Your task to perform on an android device: What's the news in Bolivia? Image 0: 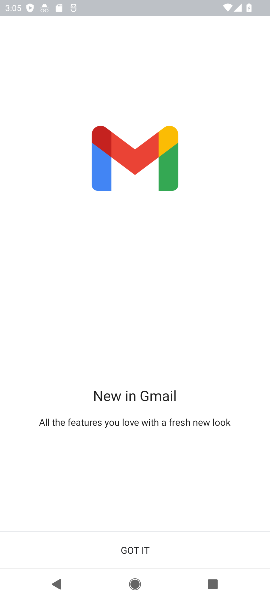
Step 0: press home button
Your task to perform on an android device: What's the news in Bolivia? Image 1: 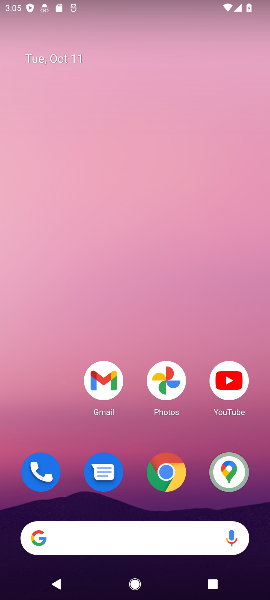
Step 1: click (168, 473)
Your task to perform on an android device: What's the news in Bolivia? Image 2: 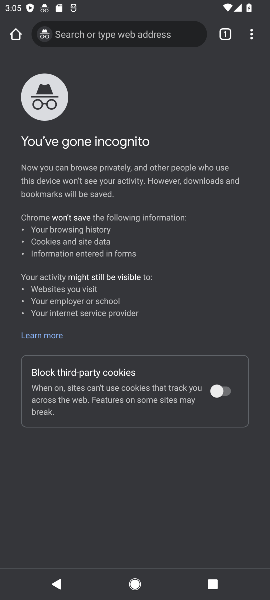
Step 2: click (130, 28)
Your task to perform on an android device: What's the news in Bolivia? Image 3: 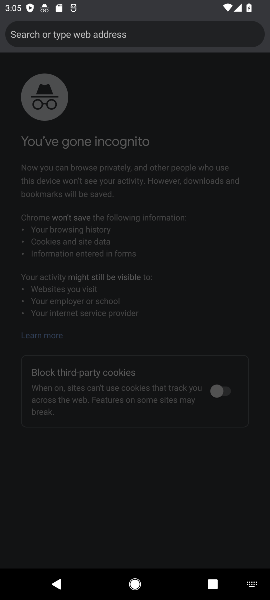
Step 3: type "What's the news in Bolivia?"
Your task to perform on an android device: What's the news in Bolivia? Image 4: 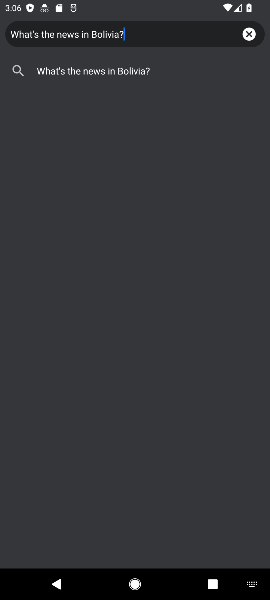
Step 4: click (72, 74)
Your task to perform on an android device: What's the news in Bolivia? Image 5: 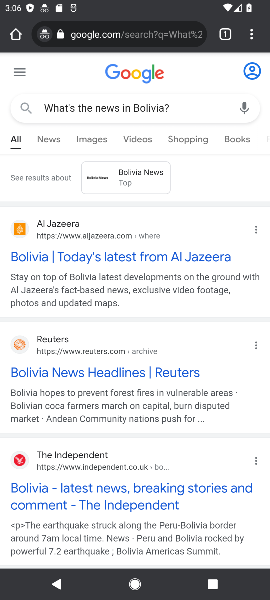
Step 5: click (49, 141)
Your task to perform on an android device: What's the news in Bolivia? Image 6: 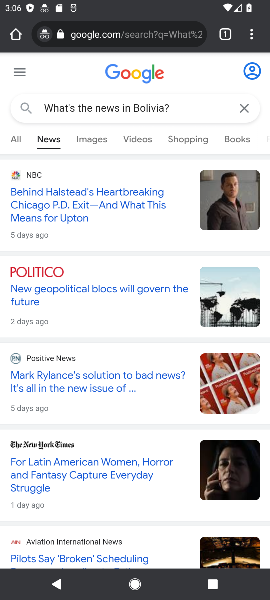
Step 6: task complete